Your task to perform on an android device: Go to sound settings Image 0: 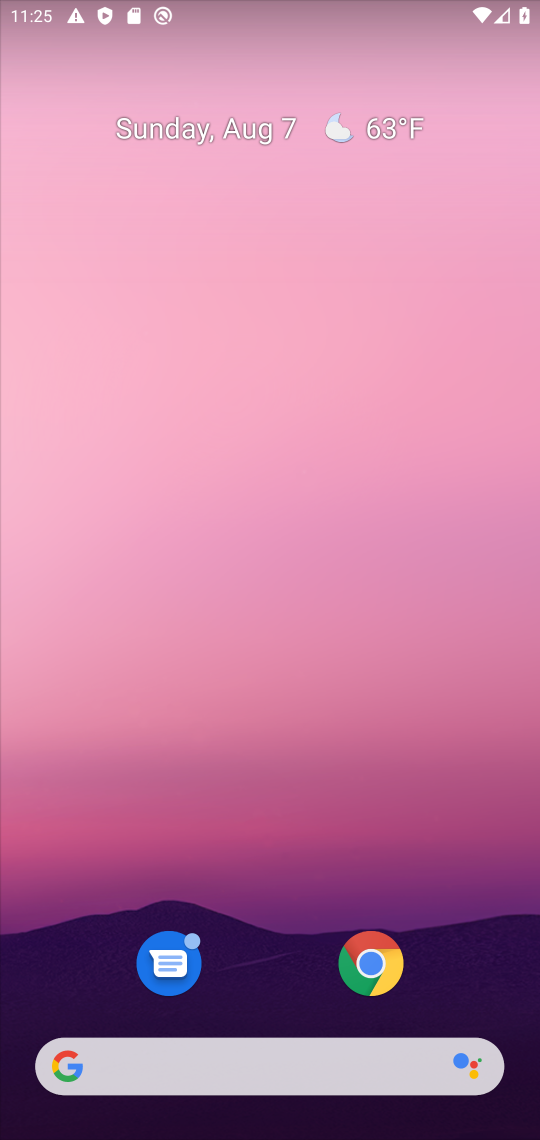
Step 0: drag from (463, 988) to (237, 34)
Your task to perform on an android device: Go to sound settings Image 1: 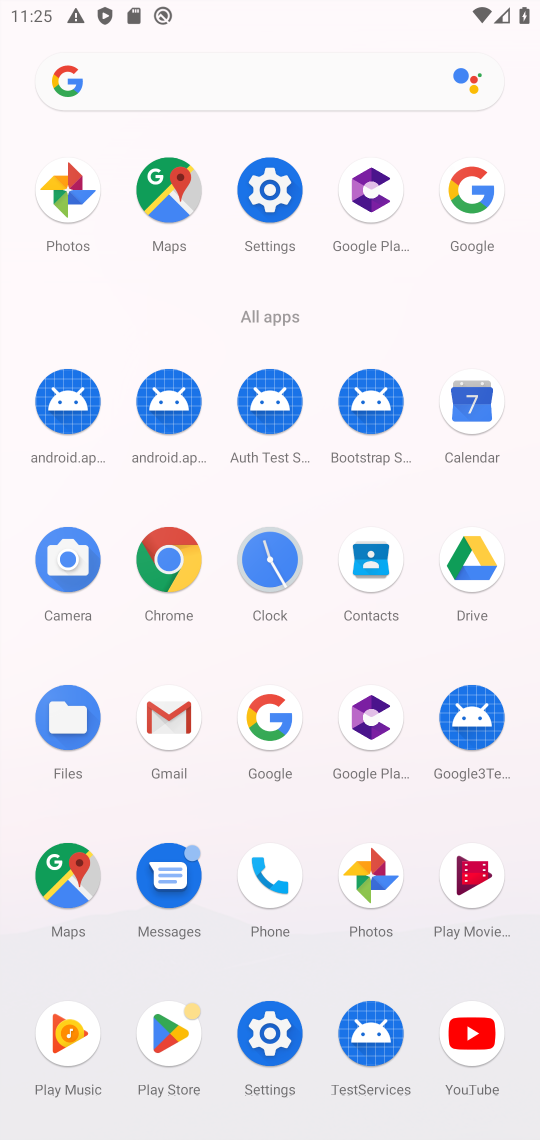
Step 1: click (268, 1064)
Your task to perform on an android device: Go to sound settings Image 2: 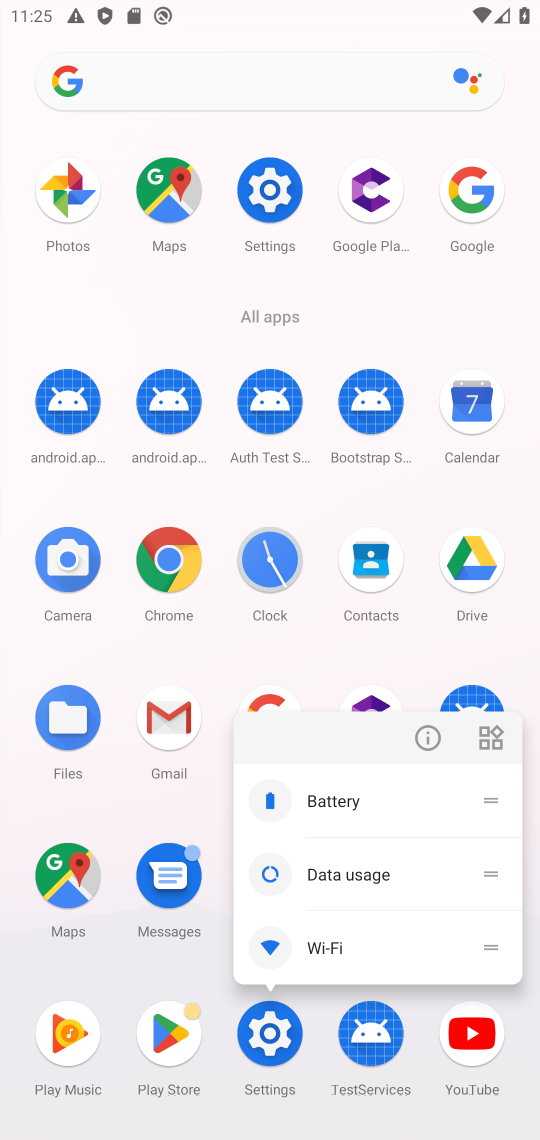
Step 2: click (274, 1055)
Your task to perform on an android device: Go to sound settings Image 3: 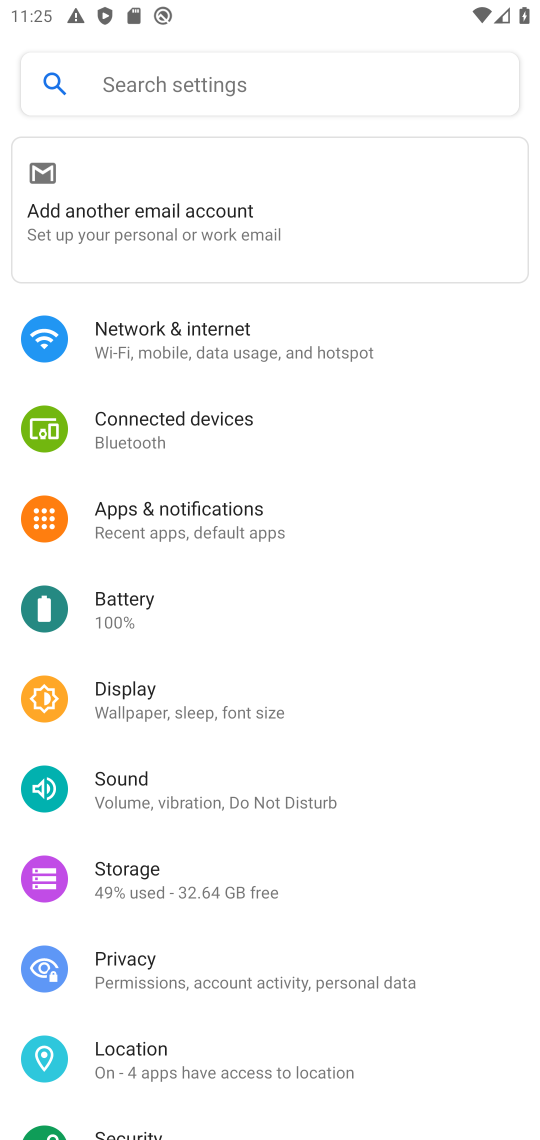
Step 3: click (153, 798)
Your task to perform on an android device: Go to sound settings Image 4: 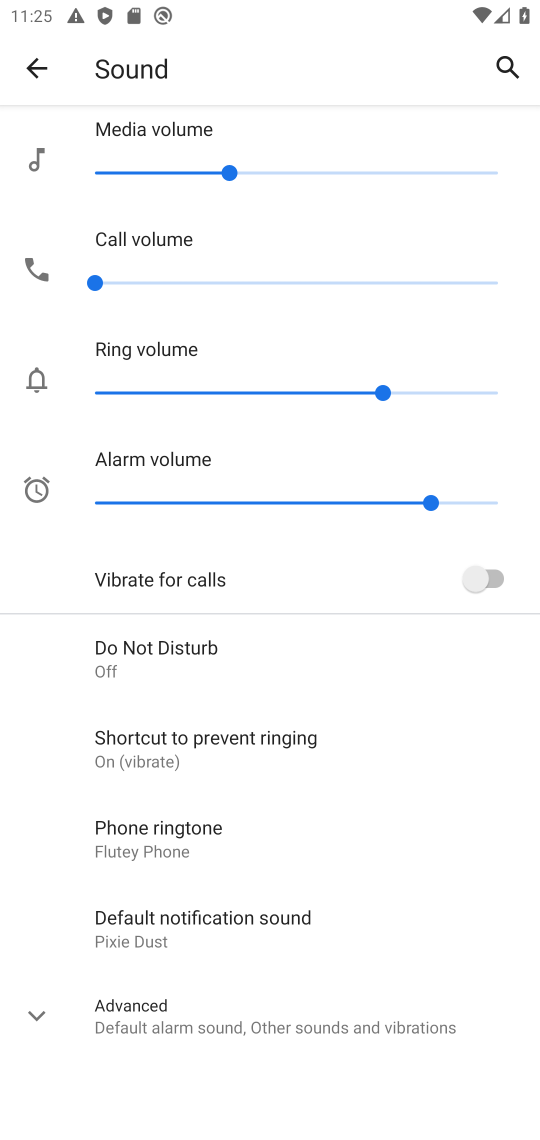
Step 4: task complete